Your task to perform on an android device: Do I have any events this weekend? Image 0: 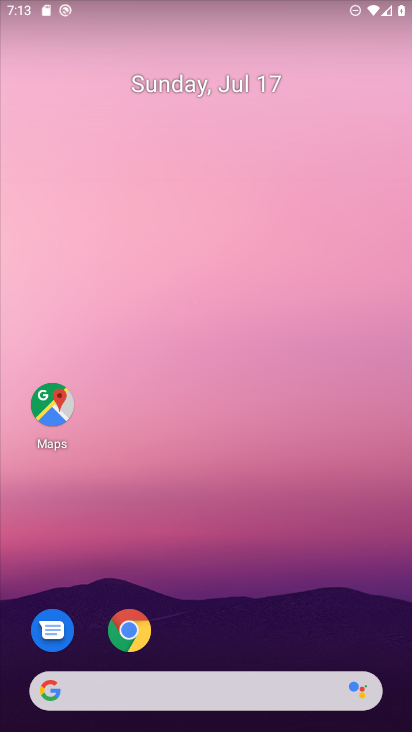
Step 0: drag from (389, 650) to (256, 17)
Your task to perform on an android device: Do I have any events this weekend? Image 1: 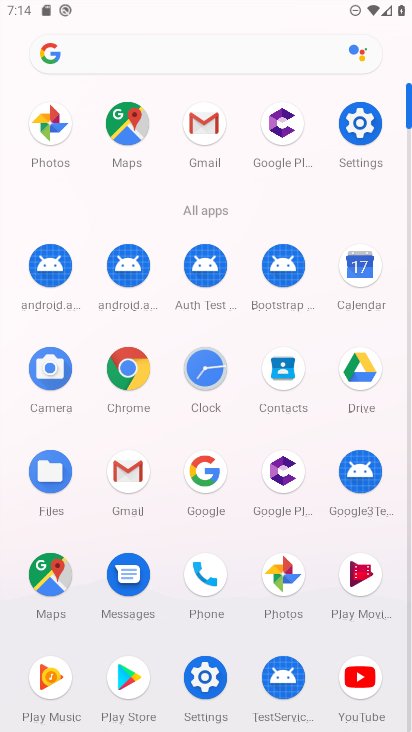
Step 1: click (350, 256)
Your task to perform on an android device: Do I have any events this weekend? Image 2: 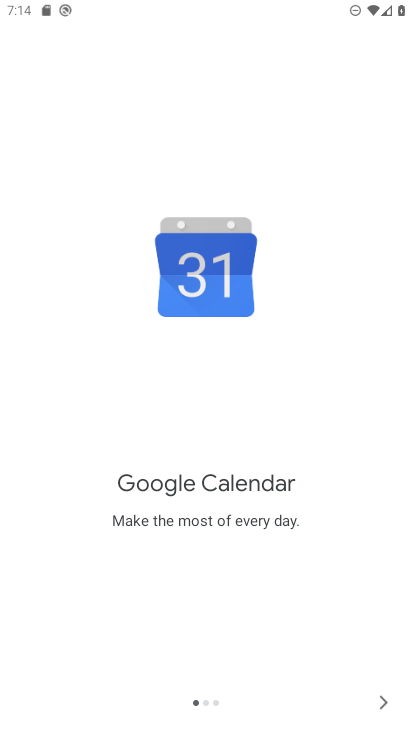
Step 2: click (379, 700)
Your task to perform on an android device: Do I have any events this weekend? Image 3: 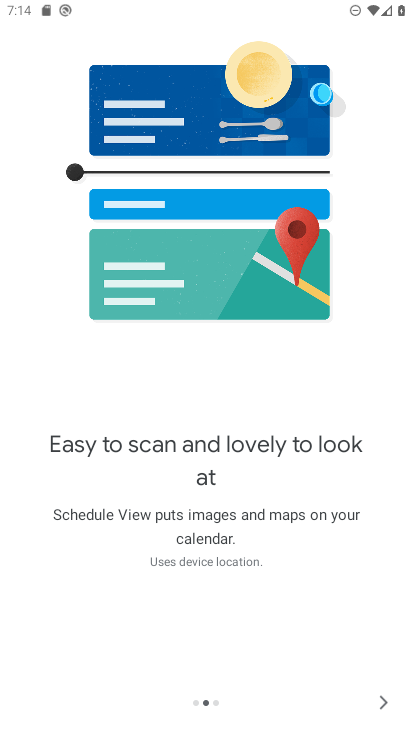
Step 3: click (379, 700)
Your task to perform on an android device: Do I have any events this weekend? Image 4: 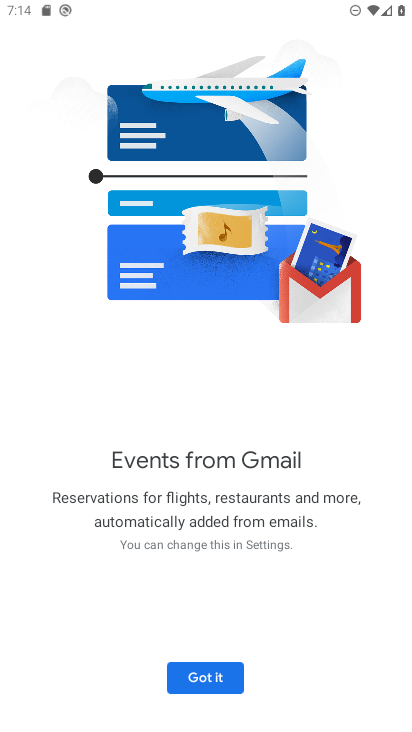
Step 4: click (217, 680)
Your task to perform on an android device: Do I have any events this weekend? Image 5: 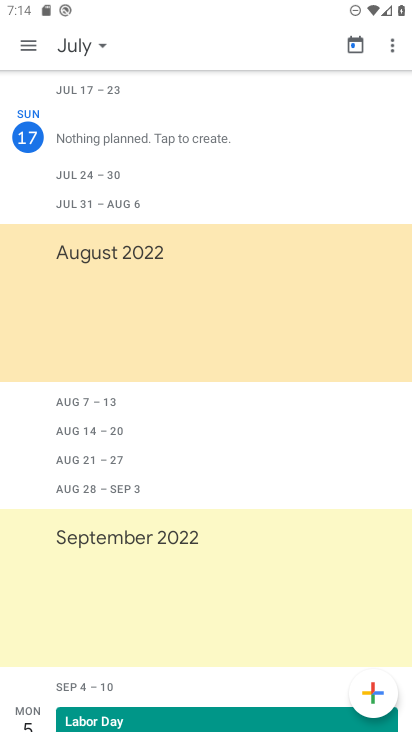
Step 5: task complete